Your task to perform on an android device: open sync settings in chrome Image 0: 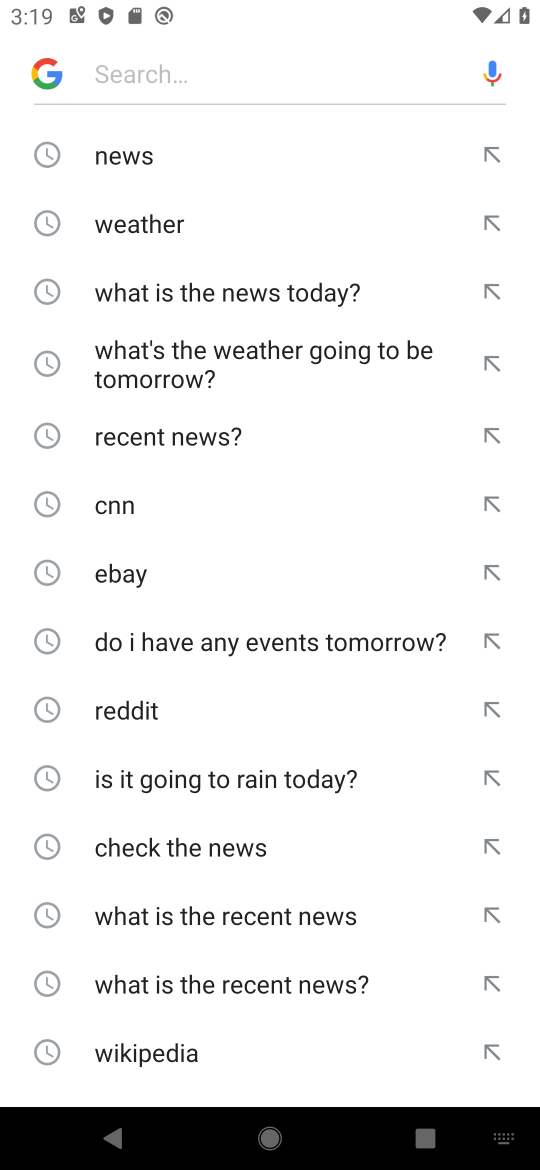
Step 0: press home button
Your task to perform on an android device: open sync settings in chrome Image 1: 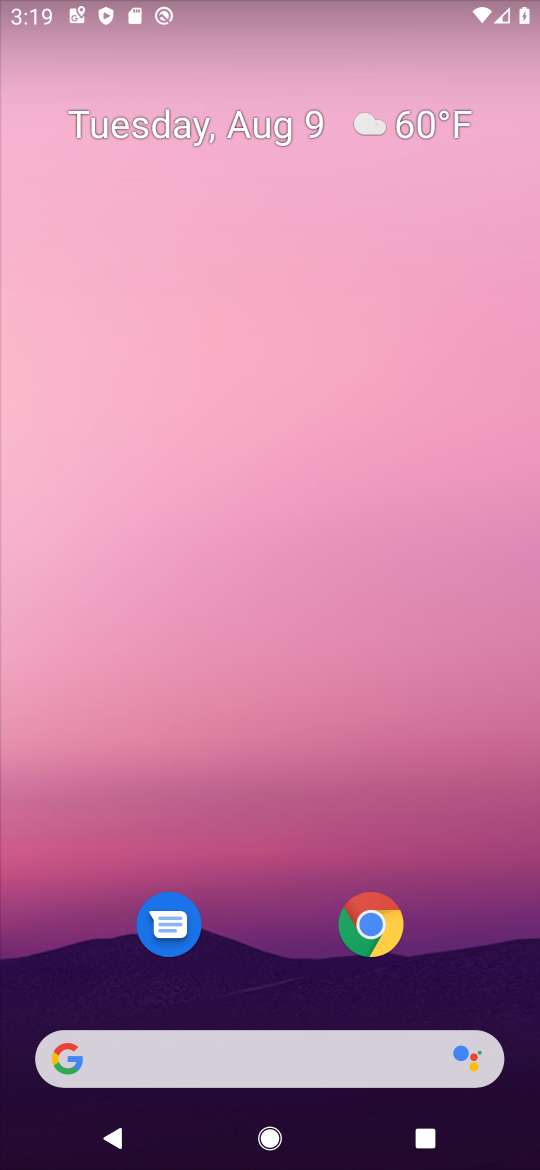
Step 1: drag from (275, 893) to (492, 44)
Your task to perform on an android device: open sync settings in chrome Image 2: 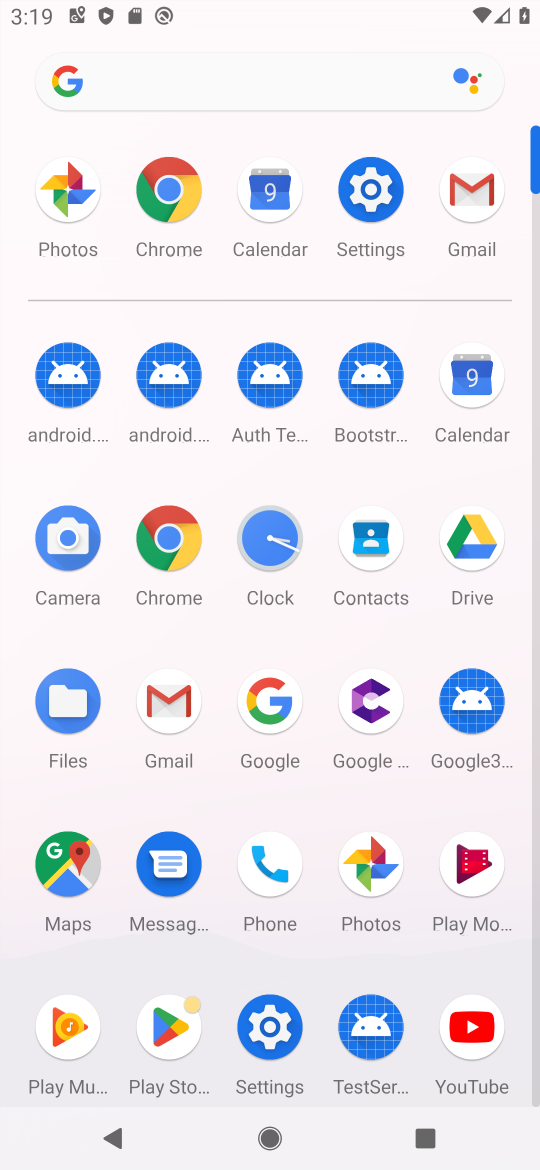
Step 2: click (178, 188)
Your task to perform on an android device: open sync settings in chrome Image 3: 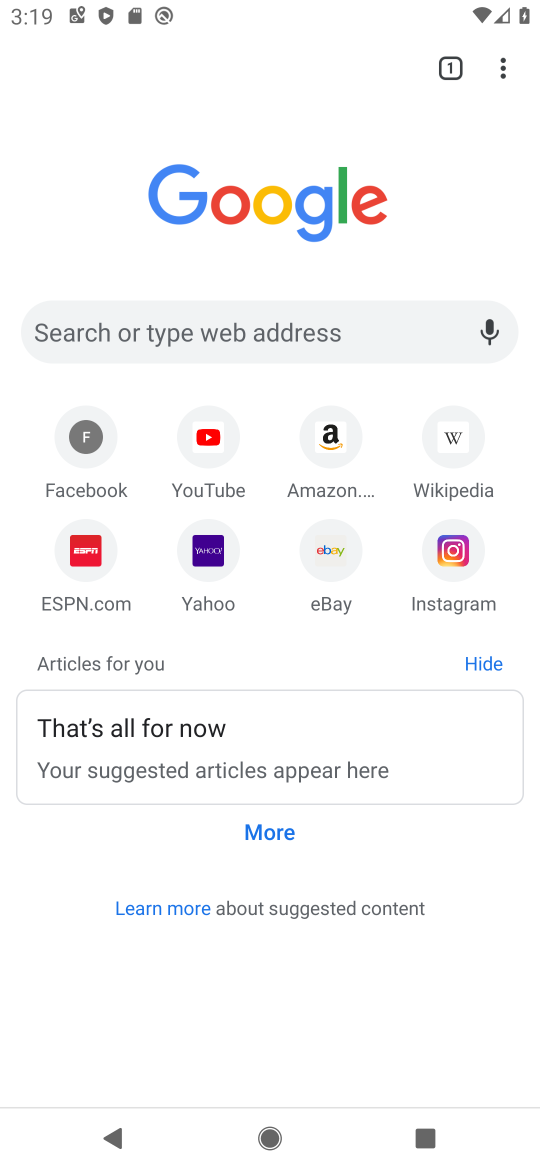
Step 3: click (498, 72)
Your task to perform on an android device: open sync settings in chrome Image 4: 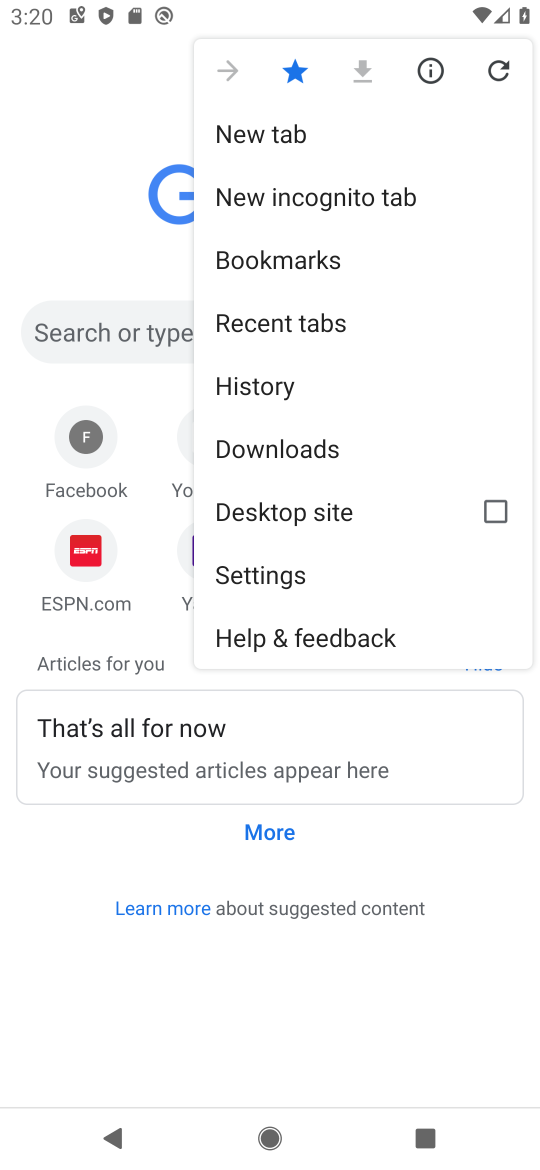
Step 4: click (303, 570)
Your task to perform on an android device: open sync settings in chrome Image 5: 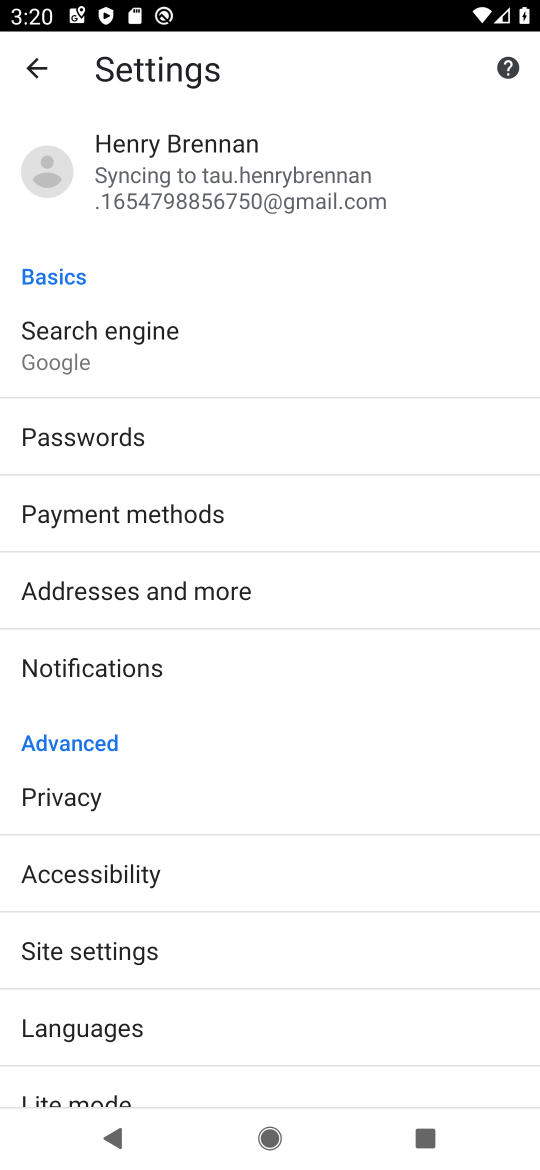
Step 5: click (265, 167)
Your task to perform on an android device: open sync settings in chrome Image 6: 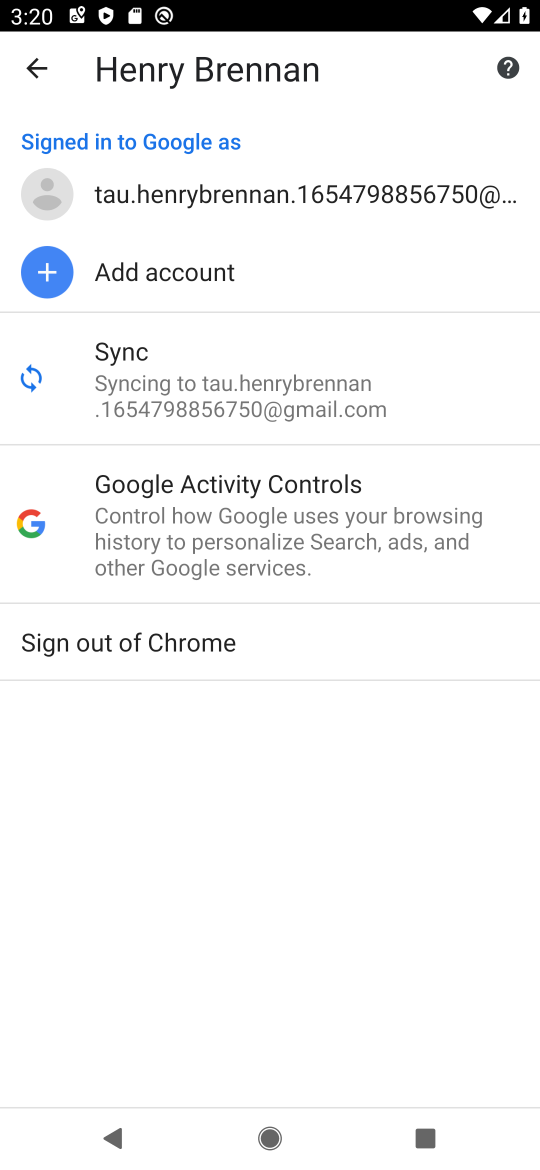
Step 6: click (193, 393)
Your task to perform on an android device: open sync settings in chrome Image 7: 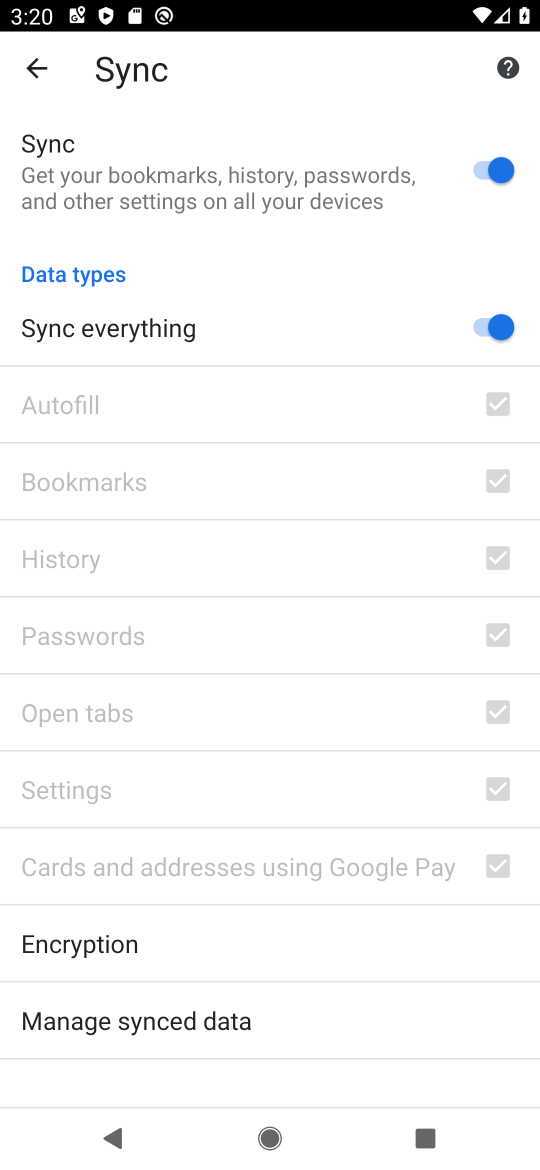
Step 7: task complete